Your task to perform on an android device: Go to Google maps Image 0: 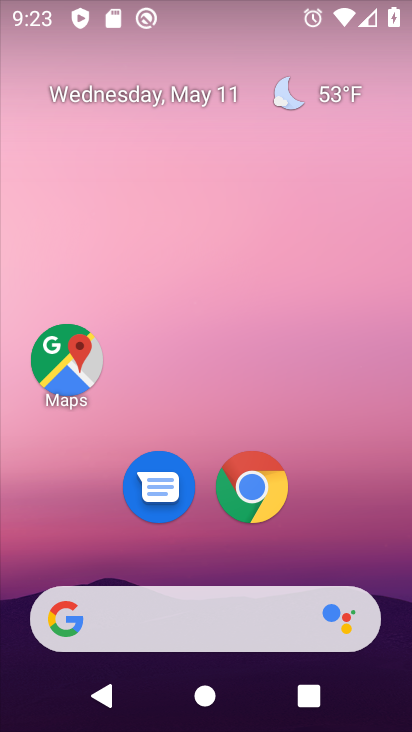
Step 0: click (62, 367)
Your task to perform on an android device: Go to Google maps Image 1: 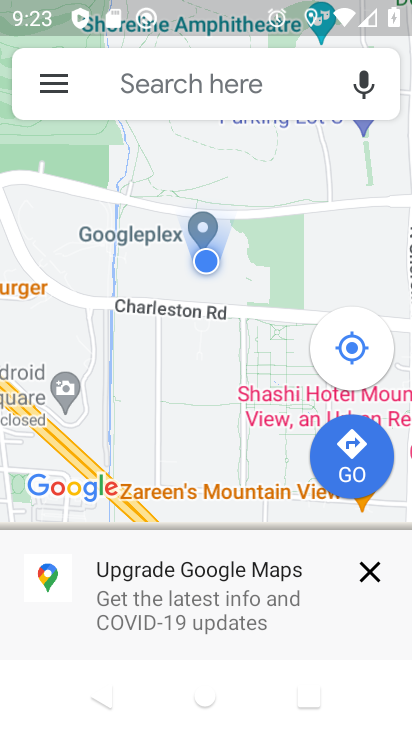
Step 1: task complete